Your task to perform on an android device: See recent photos Image 0: 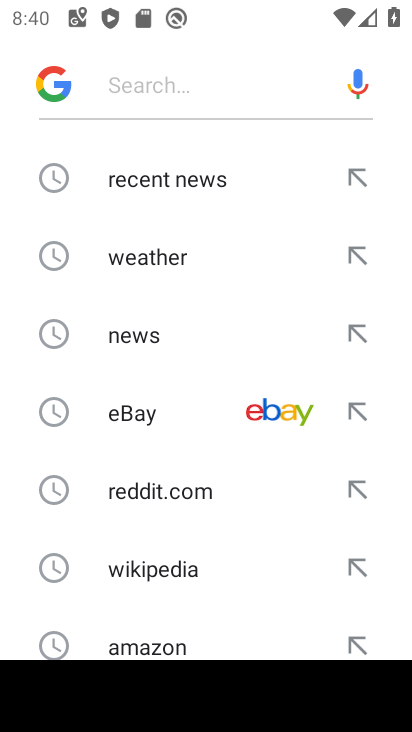
Step 0: press back button
Your task to perform on an android device: See recent photos Image 1: 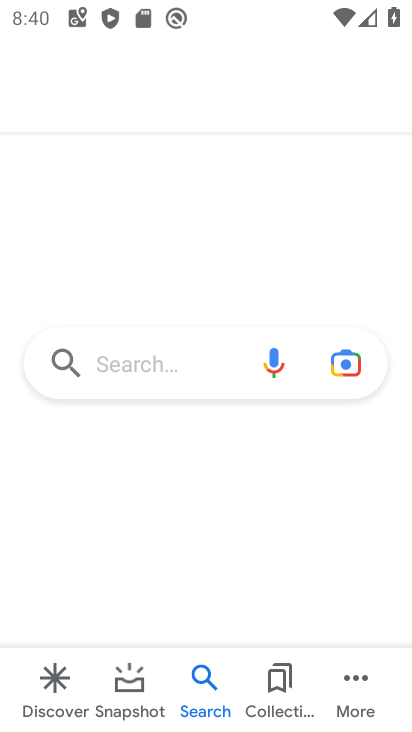
Step 1: press back button
Your task to perform on an android device: See recent photos Image 2: 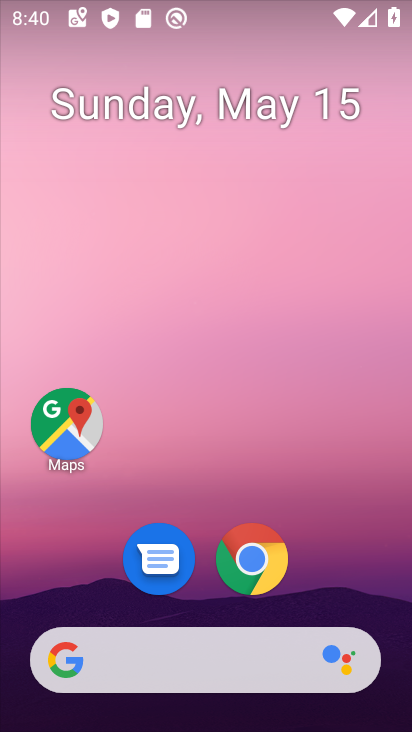
Step 2: drag from (396, 576) to (315, 145)
Your task to perform on an android device: See recent photos Image 3: 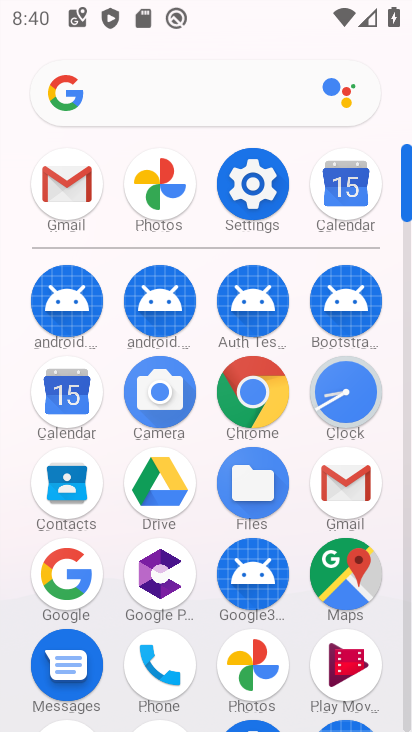
Step 3: click (172, 211)
Your task to perform on an android device: See recent photos Image 4: 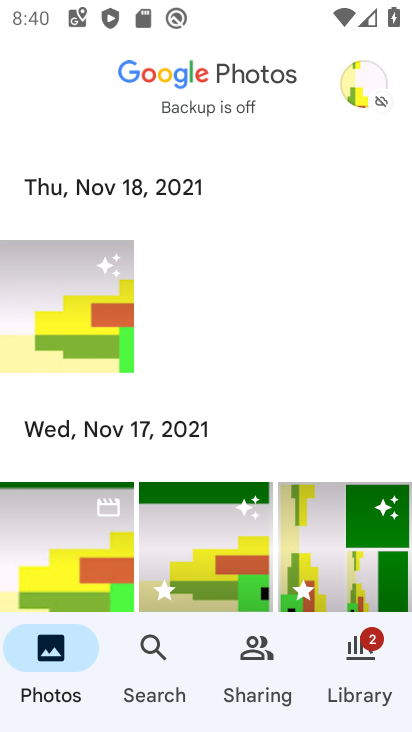
Step 4: task complete